Your task to perform on an android device: change notification settings in the gmail app Image 0: 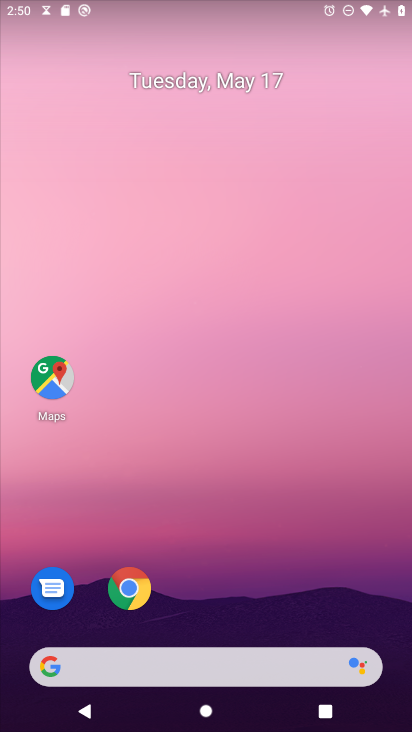
Step 0: drag from (195, 569) to (120, 104)
Your task to perform on an android device: change notification settings in the gmail app Image 1: 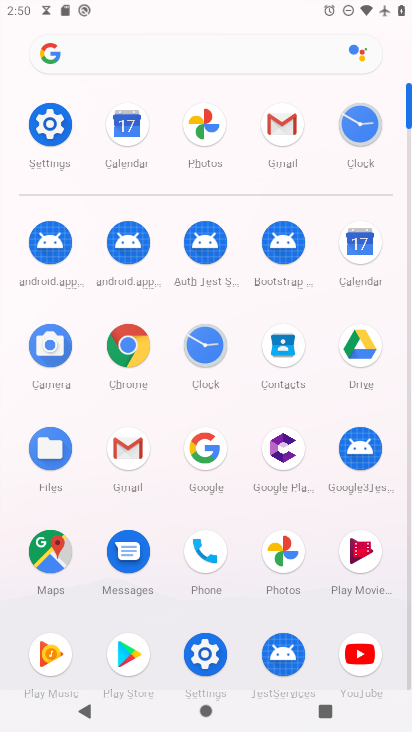
Step 1: click (283, 142)
Your task to perform on an android device: change notification settings in the gmail app Image 2: 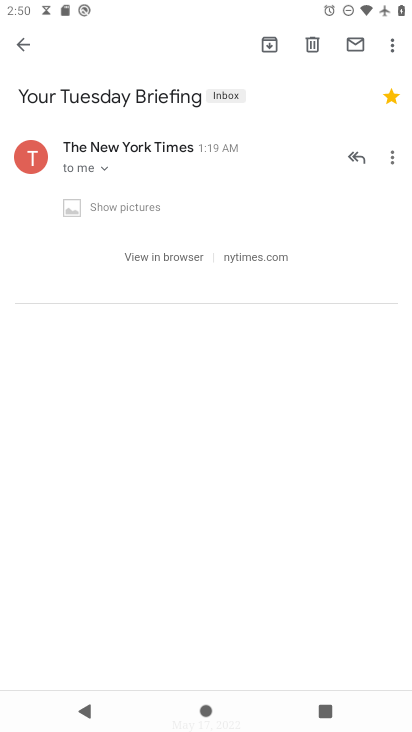
Step 2: click (20, 49)
Your task to perform on an android device: change notification settings in the gmail app Image 3: 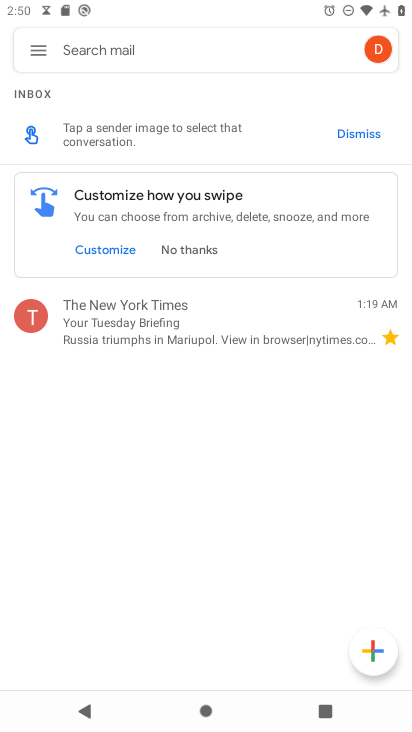
Step 3: click (43, 53)
Your task to perform on an android device: change notification settings in the gmail app Image 4: 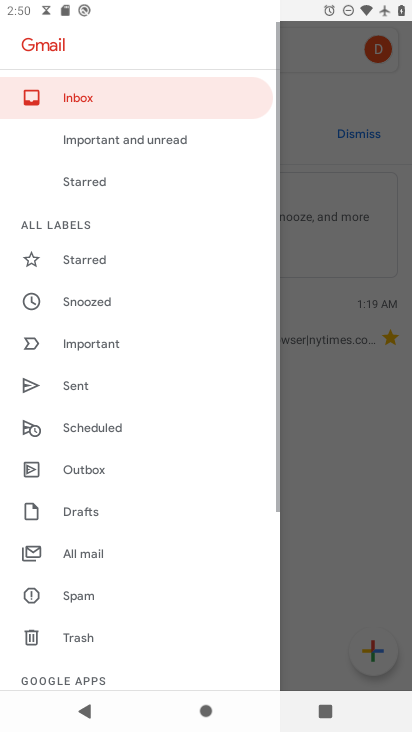
Step 4: drag from (126, 651) to (126, 224)
Your task to perform on an android device: change notification settings in the gmail app Image 5: 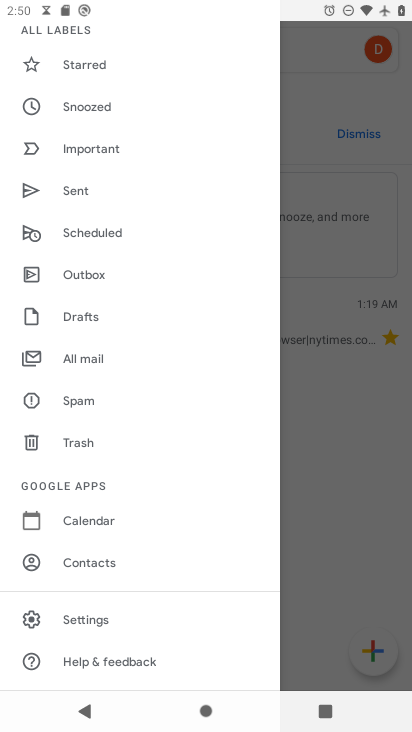
Step 5: click (60, 618)
Your task to perform on an android device: change notification settings in the gmail app Image 6: 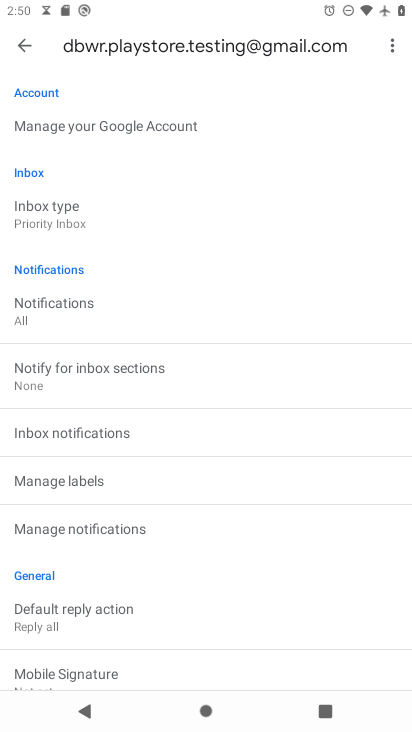
Step 6: click (69, 537)
Your task to perform on an android device: change notification settings in the gmail app Image 7: 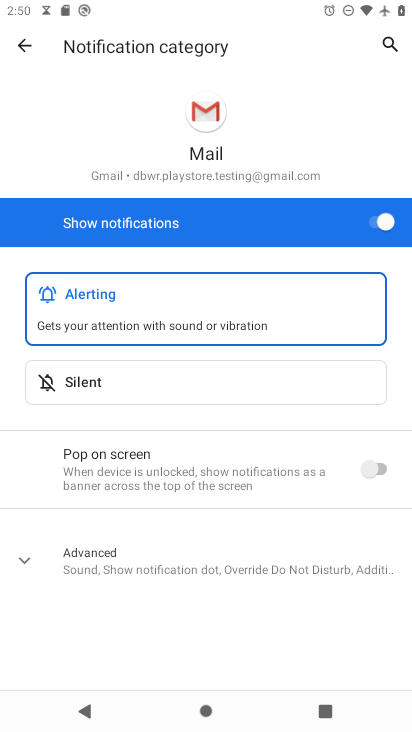
Step 7: click (384, 227)
Your task to perform on an android device: change notification settings in the gmail app Image 8: 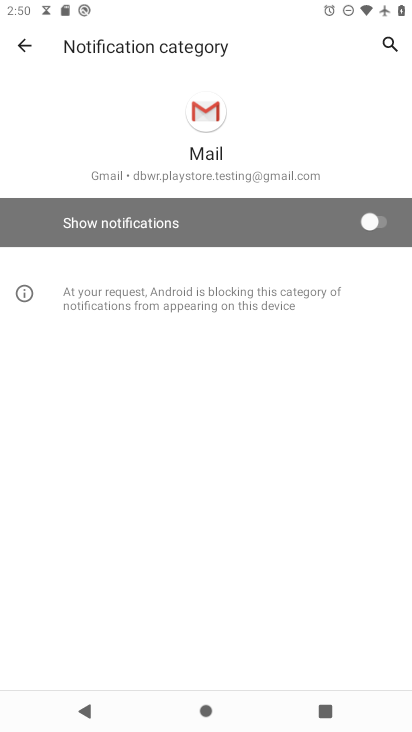
Step 8: task complete